Your task to perform on an android device: turn off location Image 0: 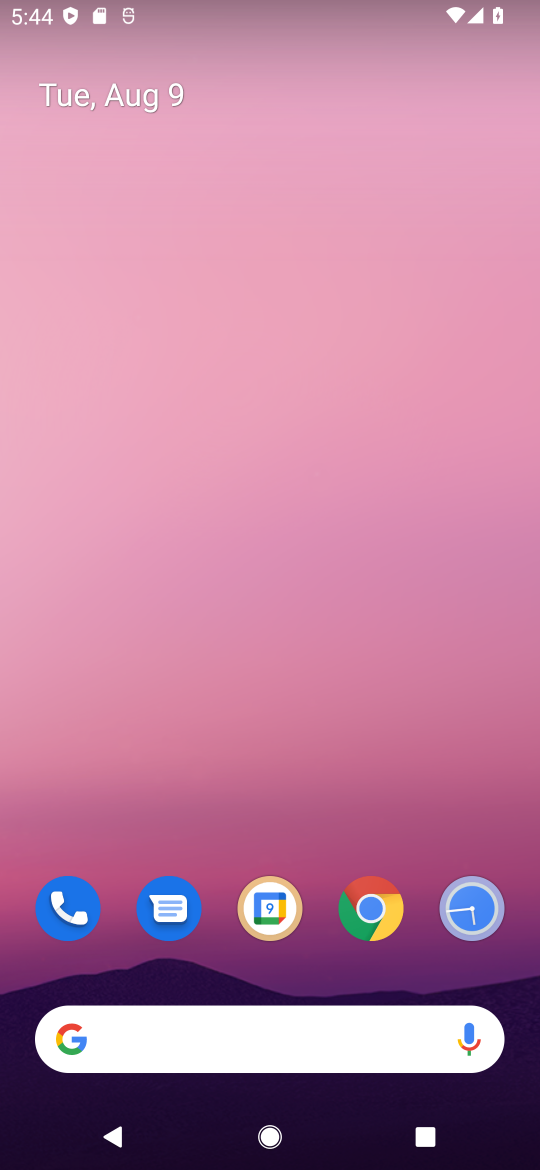
Step 0: drag from (289, 826) to (389, 0)
Your task to perform on an android device: turn off location Image 1: 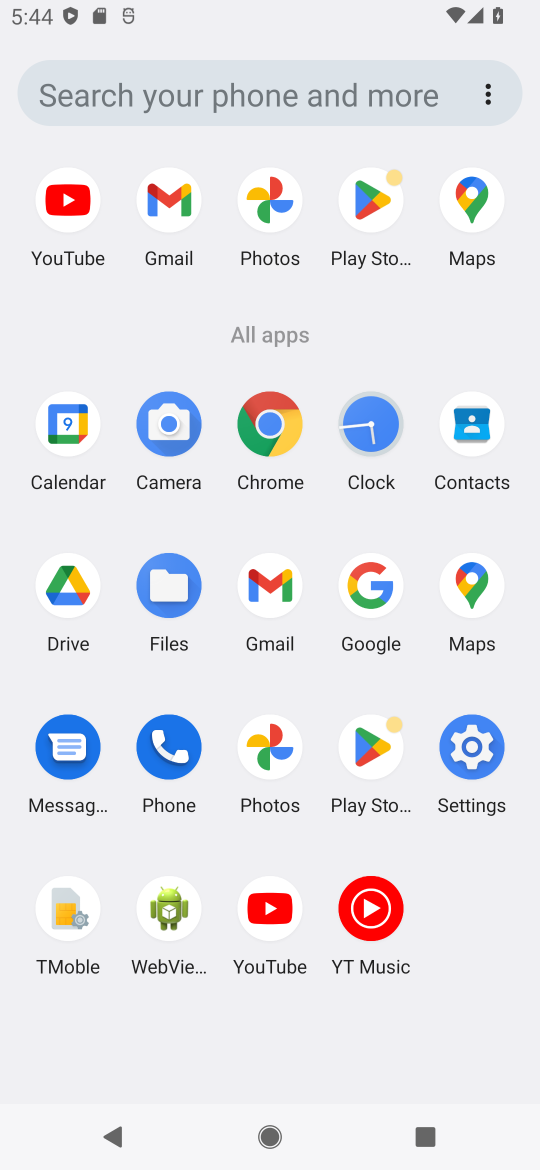
Step 1: click (476, 737)
Your task to perform on an android device: turn off location Image 2: 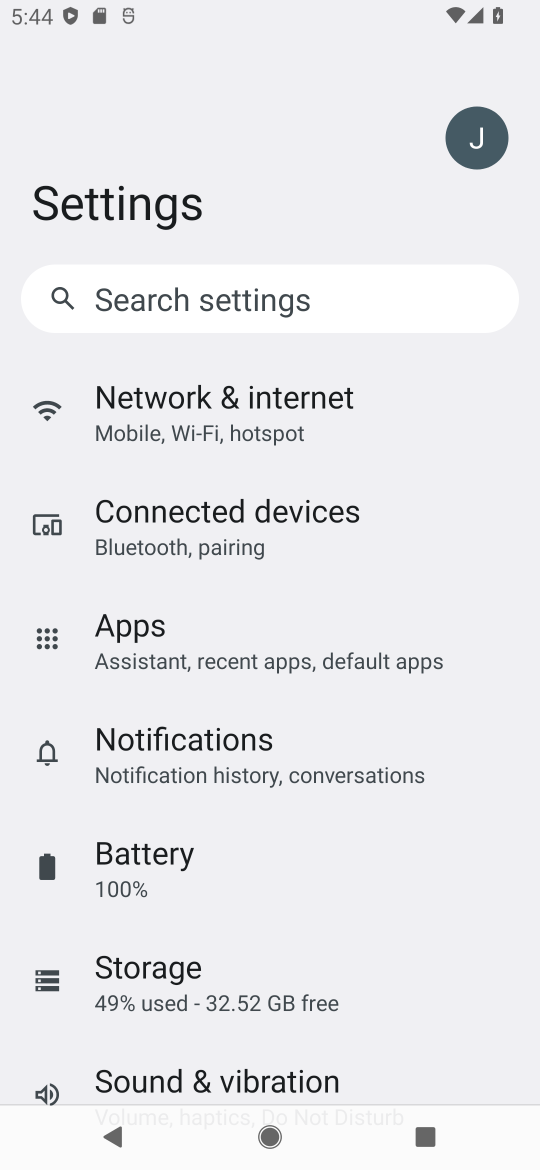
Step 2: drag from (317, 895) to (280, 82)
Your task to perform on an android device: turn off location Image 3: 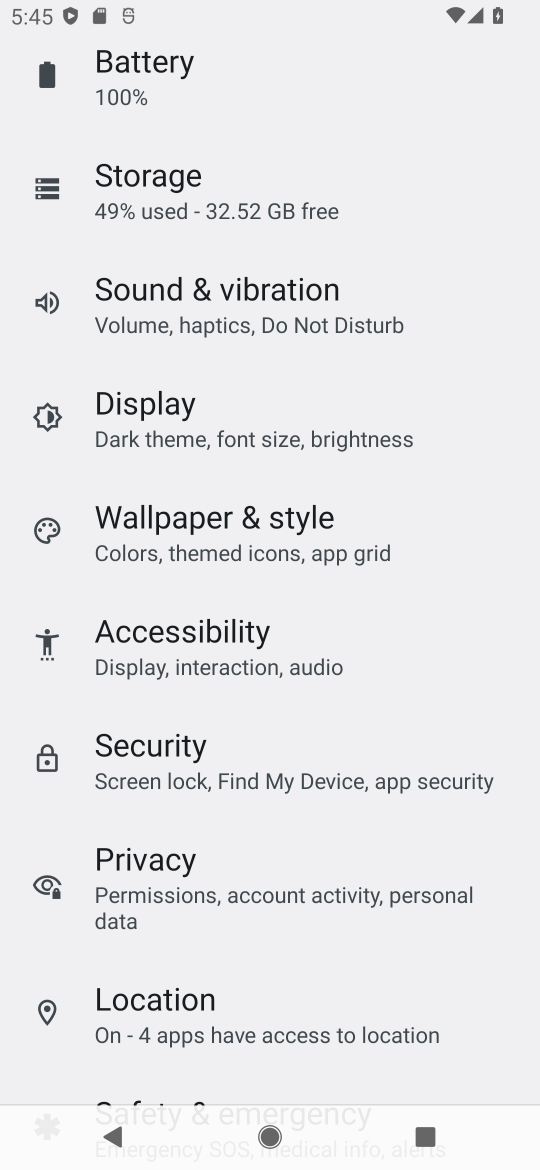
Step 3: click (280, 1023)
Your task to perform on an android device: turn off location Image 4: 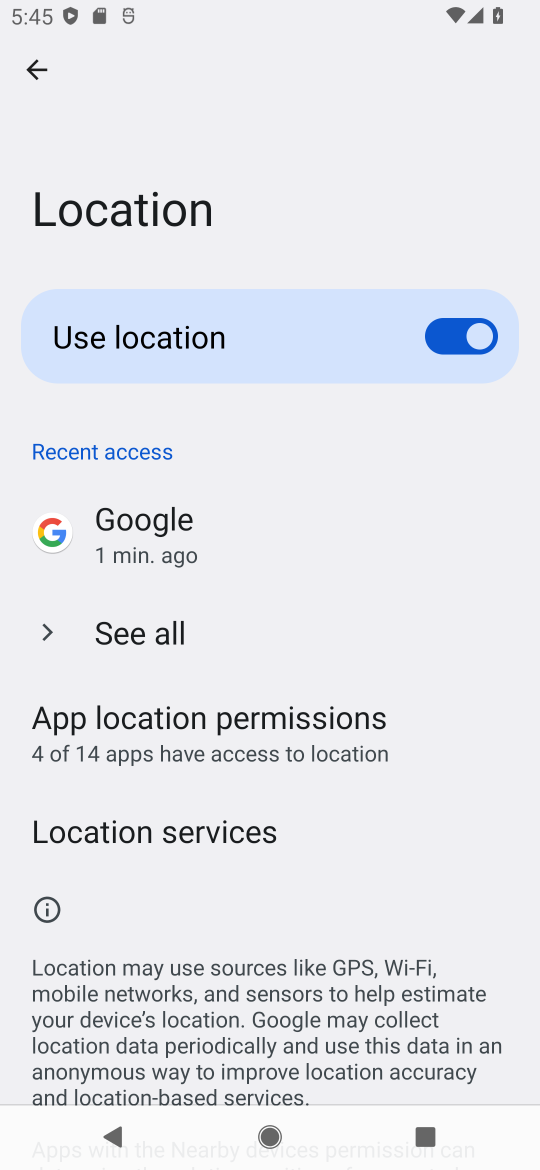
Step 4: click (464, 335)
Your task to perform on an android device: turn off location Image 5: 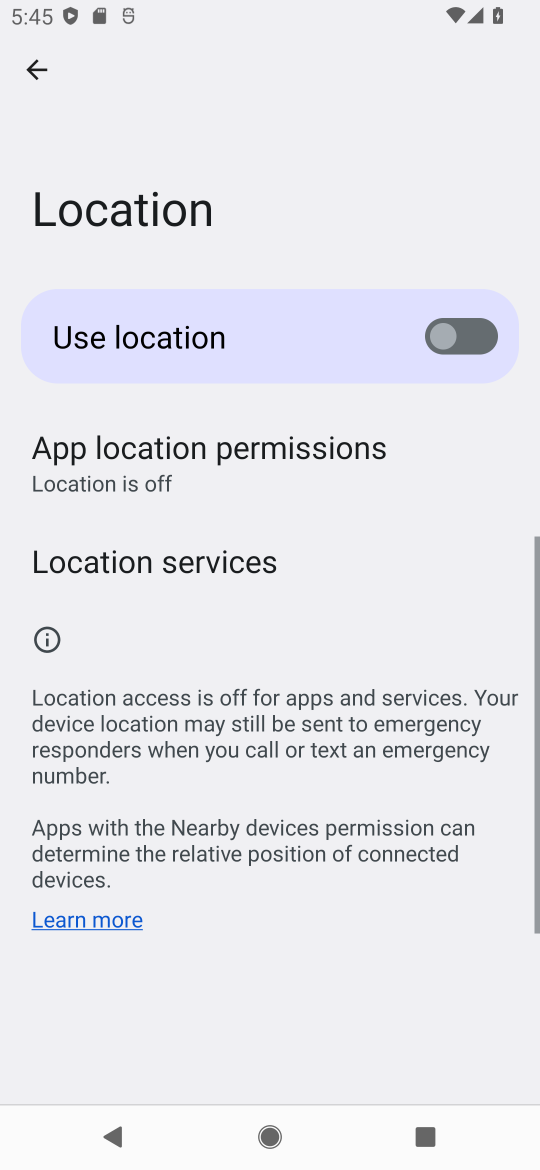
Step 5: task complete